Your task to perform on an android device: toggle location history Image 0: 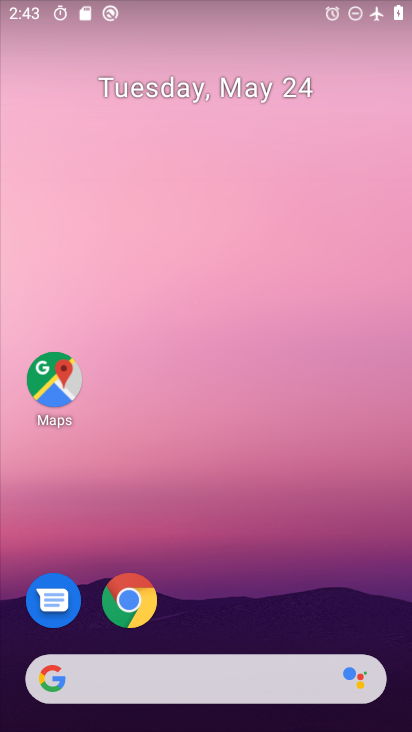
Step 0: drag from (270, 618) to (251, 167)
Your task to perform on an android device: toggle location history Image 1: 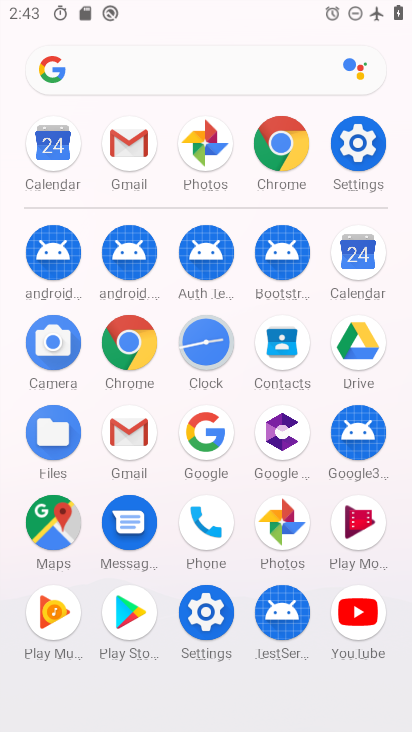
Step 1: click (347, 151)
Your task to perform on an android device: toggle location history Image 2: 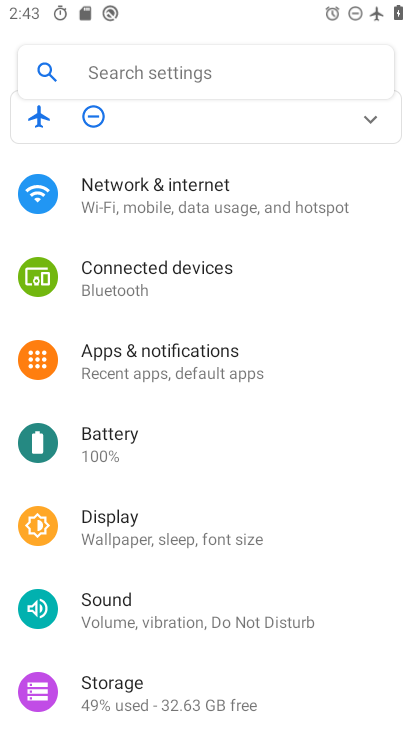
Step 2: drag from (183, 531) to (219, 235)
Your task to perform on an android device: toggle location history Image 3: 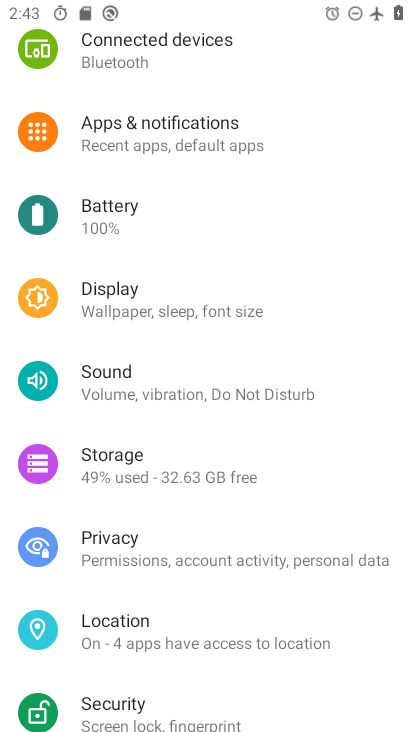
Step 3: click (171, 639)
Your task to perform on an android device: toggle location history Image 4: 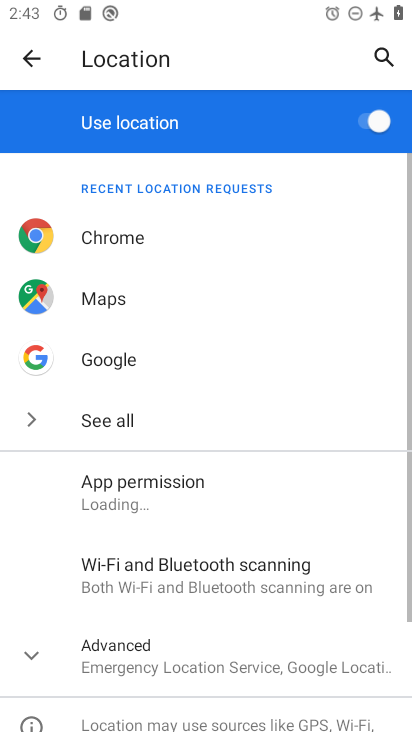
Step 4: drag from (173, 629) to (189, 251)
Your task to perform on an android device: toggle location history Image 5: 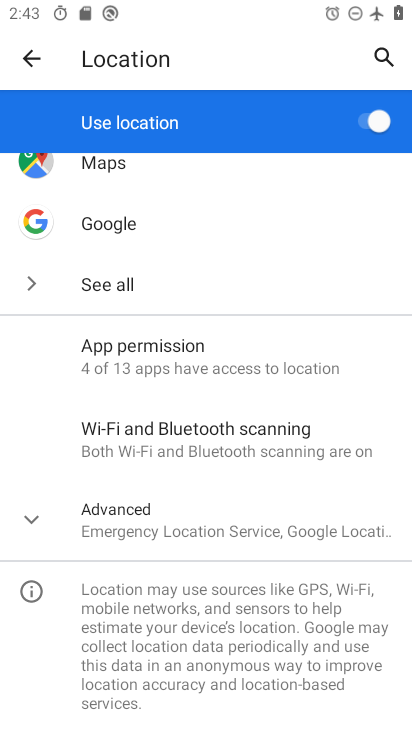
Step 5: click (131, 527)
Your task to perform on an android device: toggle location history Image 6: 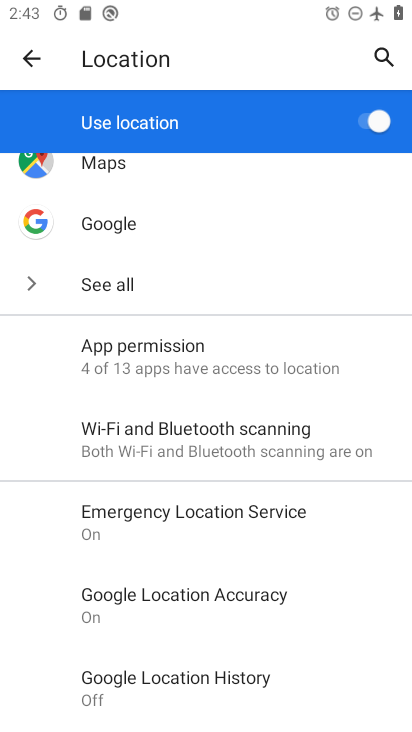
Step 6: click (230, 668)
Your task to perform on an android device: toggle location history Image 7: 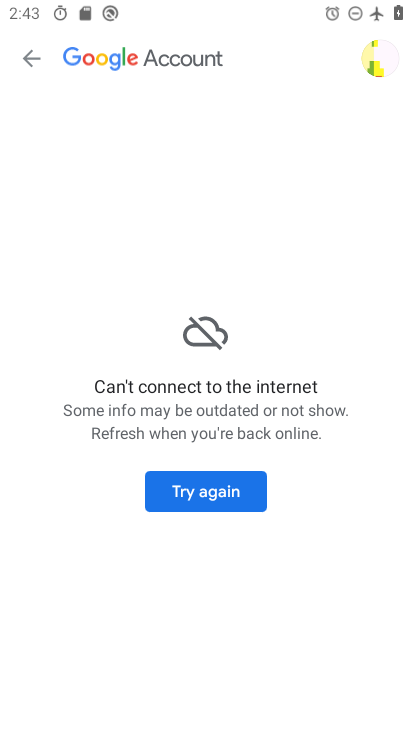
Step 7: task complete